Your task to perform on an android device: stop showing notifications on the lock screen Image 0: 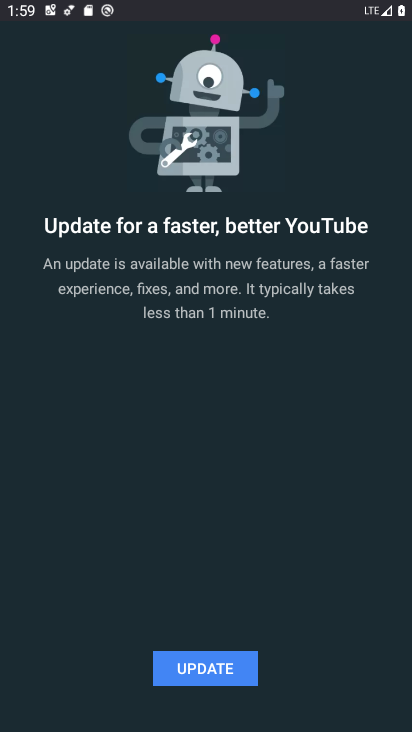
Step 0: press home button
Your task to perform on an android device: stop showing notifications on the lock screen Image 1: 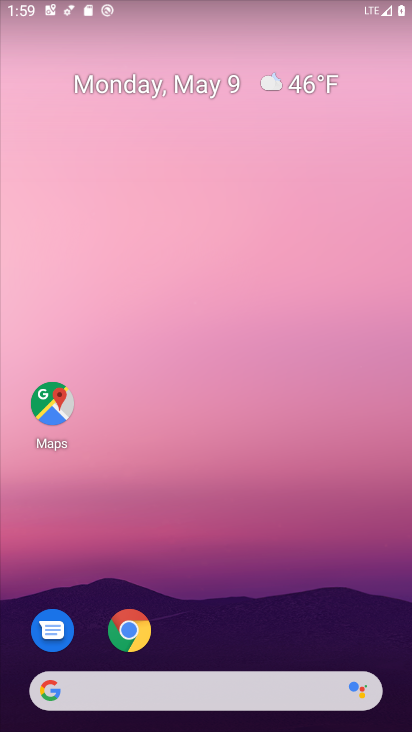
Step 1: drag from (204, 630) to (301, 74)
Your task to perform on an android device: stop showing notifications on the lock screen Image 2: 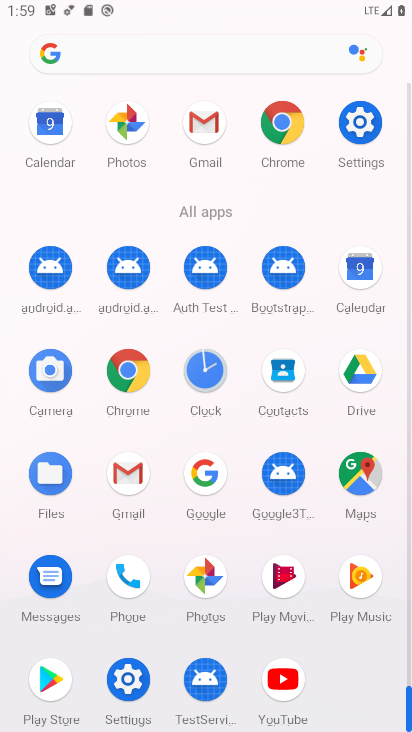
Step 2: click (124, 695)
Your task to perform on an android device: stop showing notifications on the lock screen Image 3: 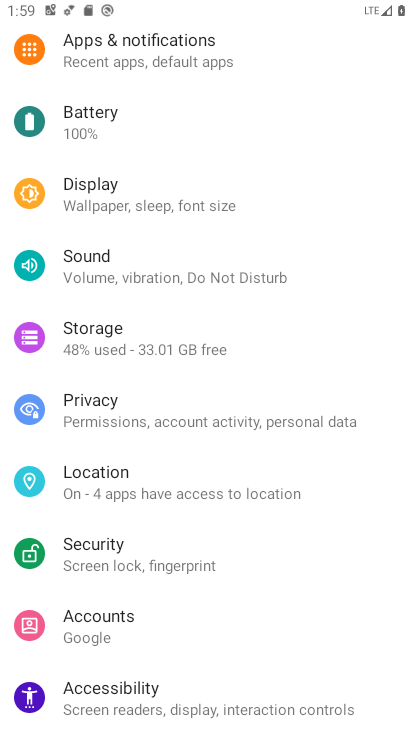
Step 3: click (186, 64)
Your task to perform on an android device: stop showing notifications on the lock screen Image 4: 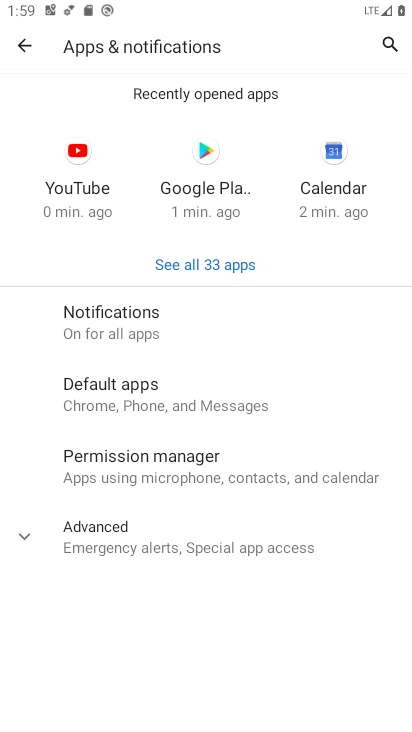
Step 4: click (162, 316)
Your task to perform on an android device: stop showing notifications on the lock screen Image 5: 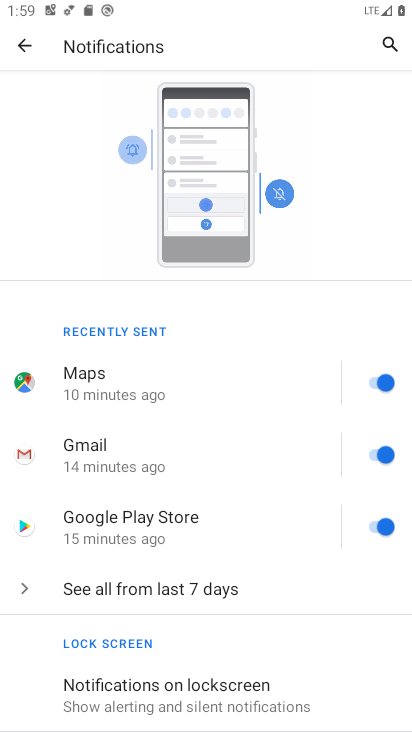
Step 5: drag from (217, 605) to (296, 313)
Your task to perform on an android device: stop showing notifications on the lock screen Image 6: 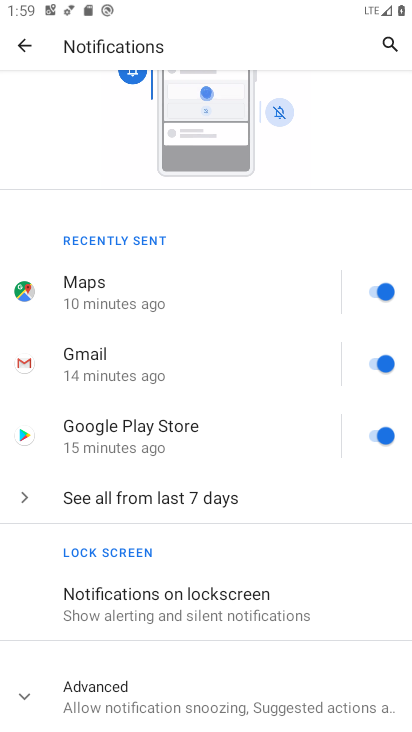
Step 6: click (244, 621)
Your task to perform on an android device: stop showing notifications on the lock screen Image 7: 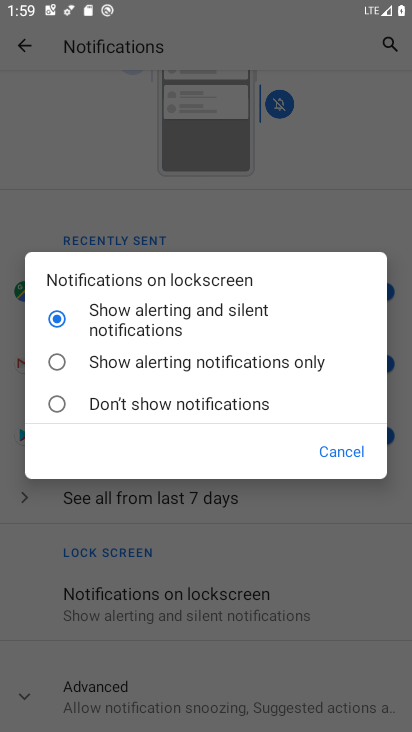
Step 7: click (184, 418)
Your task to perform on an android device: stop showing notifications on the lock screen Image 8: 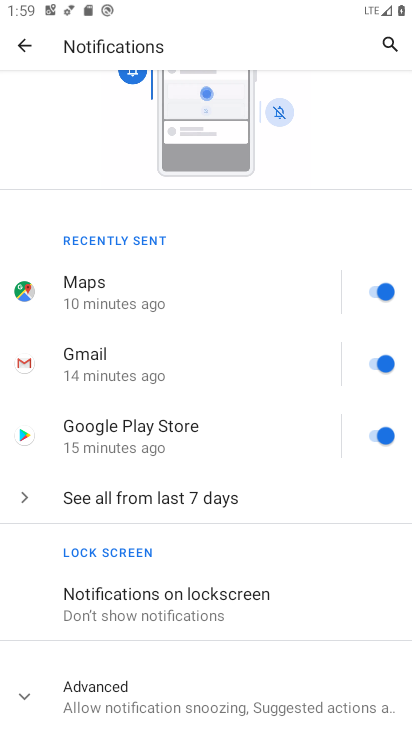
Step 8: task complete